Your task to perform on an android device: Do I have any events tomorrow? Image 0: 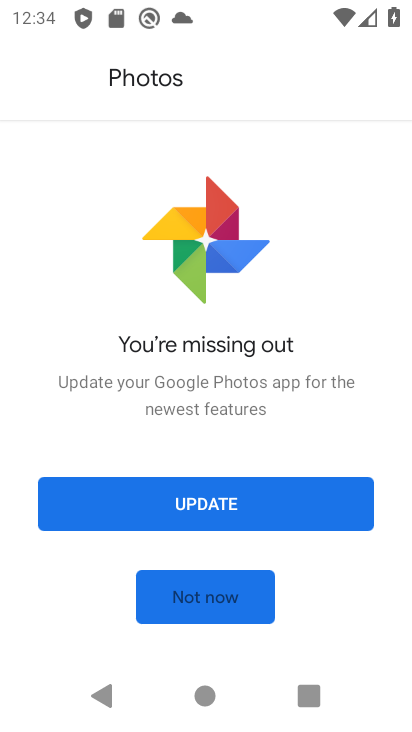
Step 0: click (201, 704)
Your task to perform on an android device: Do I have any events tomorrow? Image 1: 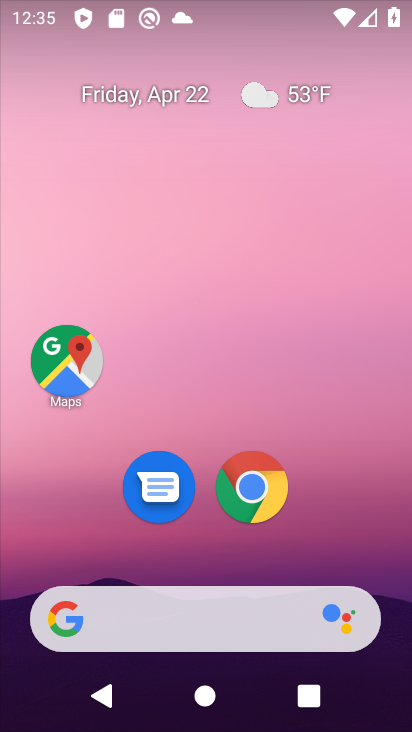
Step 1: click (150, 103)
Your task to perform on an android device: Do I have any events tomorrow? Image 2: 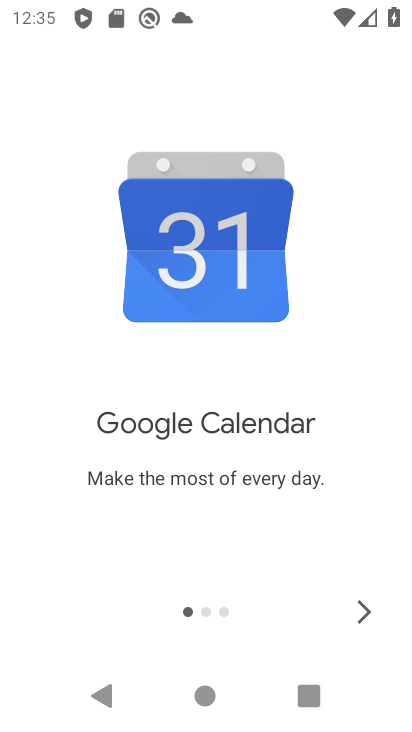
Step 2: click (365, 618)
Your task to perform on an android device: Do I have any events tomorrow? Image 3: 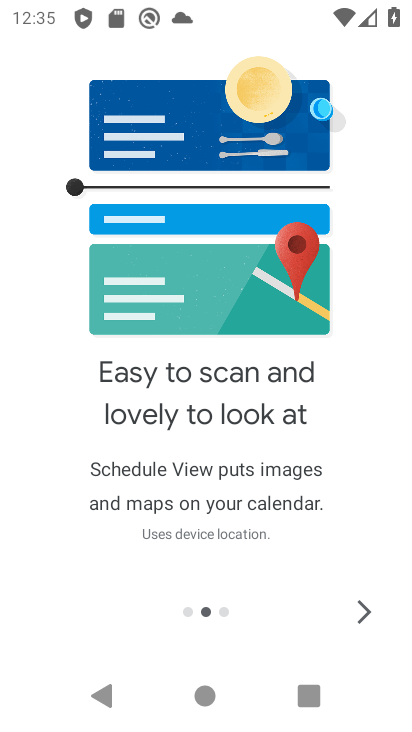
Step 3: click (365, 618)
Your task to perform on an android device: Do I have any events tomorrow? Image 4: 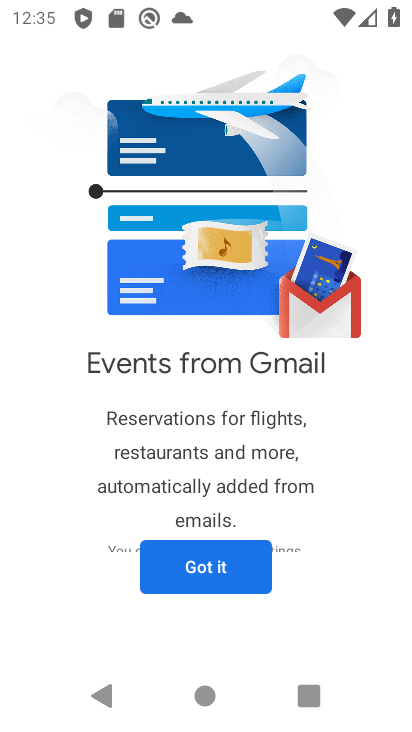
Step 4: click (208, 587)
Your task to perform on an android device: Do I have any events tomorrow? Image 5: 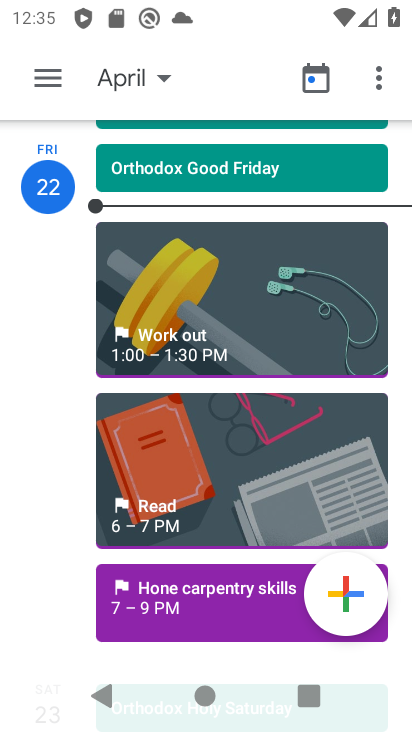
Step 5: click (133, 82)
Your task to perform on an android device: Do I have any events tomorrow? Image 6: 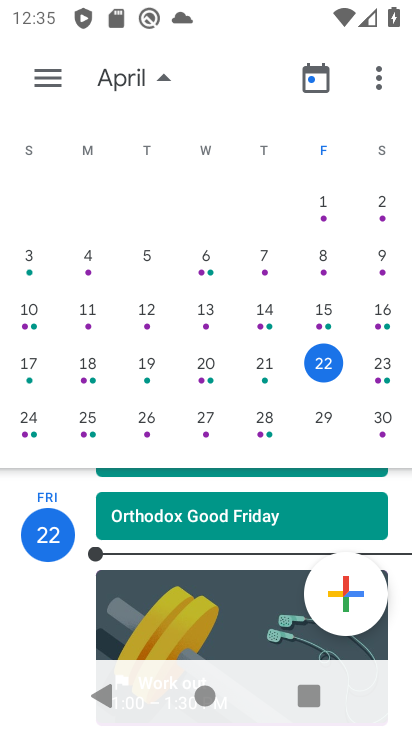
Step 6: click (375, 376)
Your task to perform on an android device: Do I have any events tomorrow? Image 7: 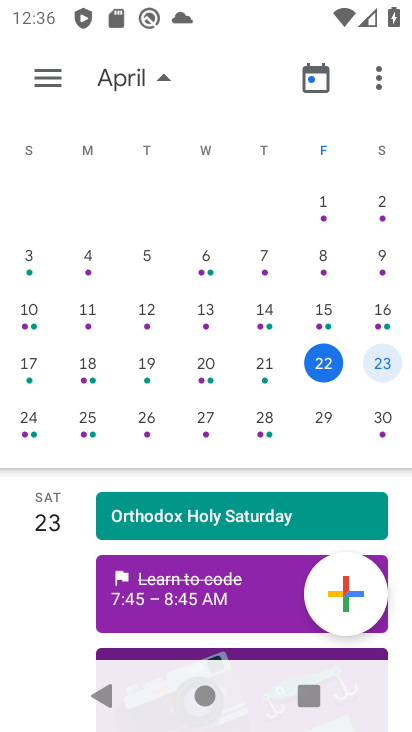
Step 7: click (190, 600)
Your task to perform on an android device: Do I have any events tomorrow? Image 8: 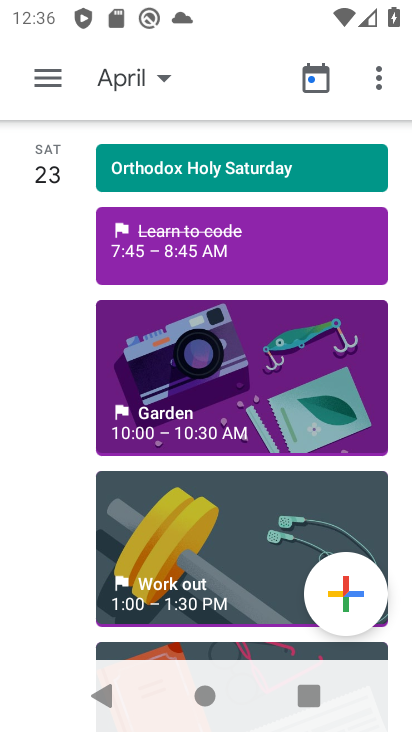
Step 8: task complete